Your task to perform on an android device: Check the news Image 0: 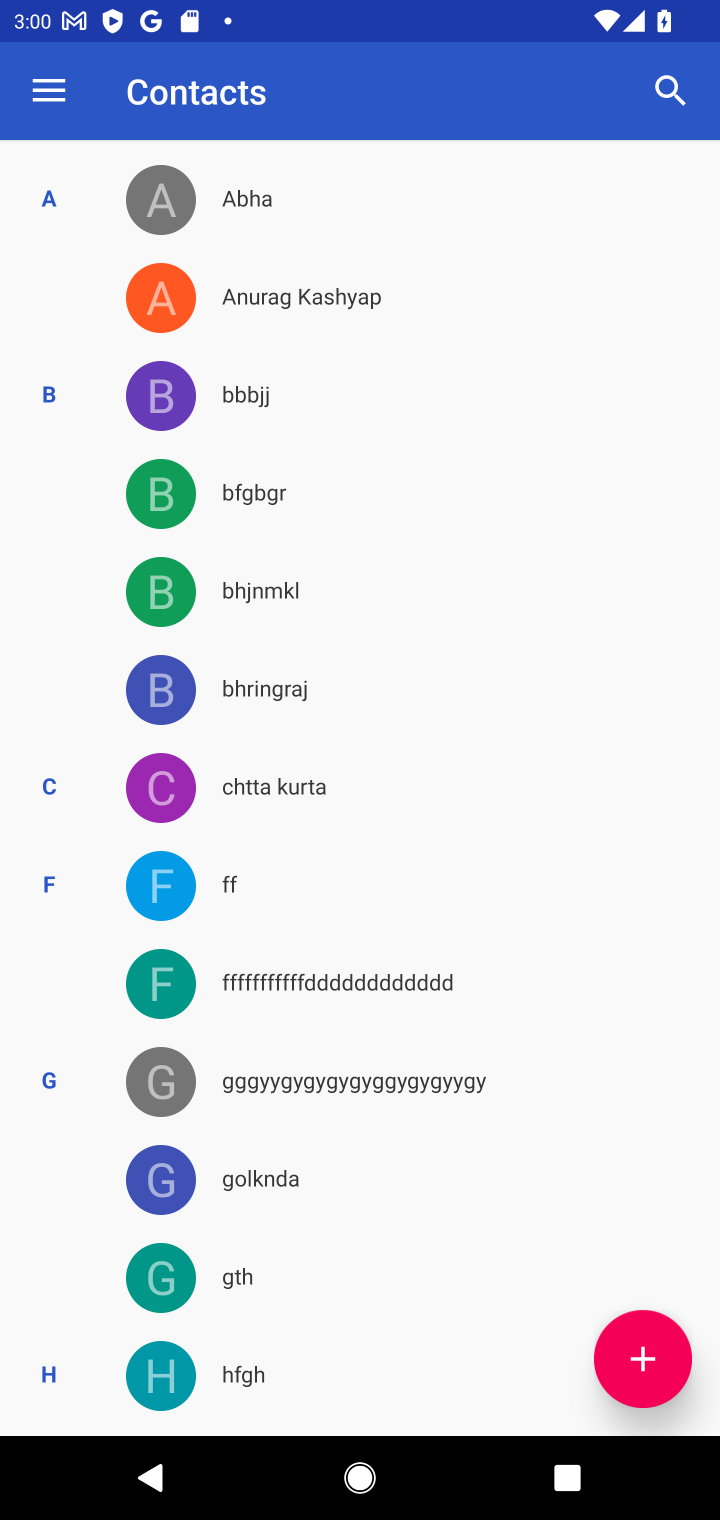
Step 0: press home button
Your task to perform on an android device: Check the news Image 1: 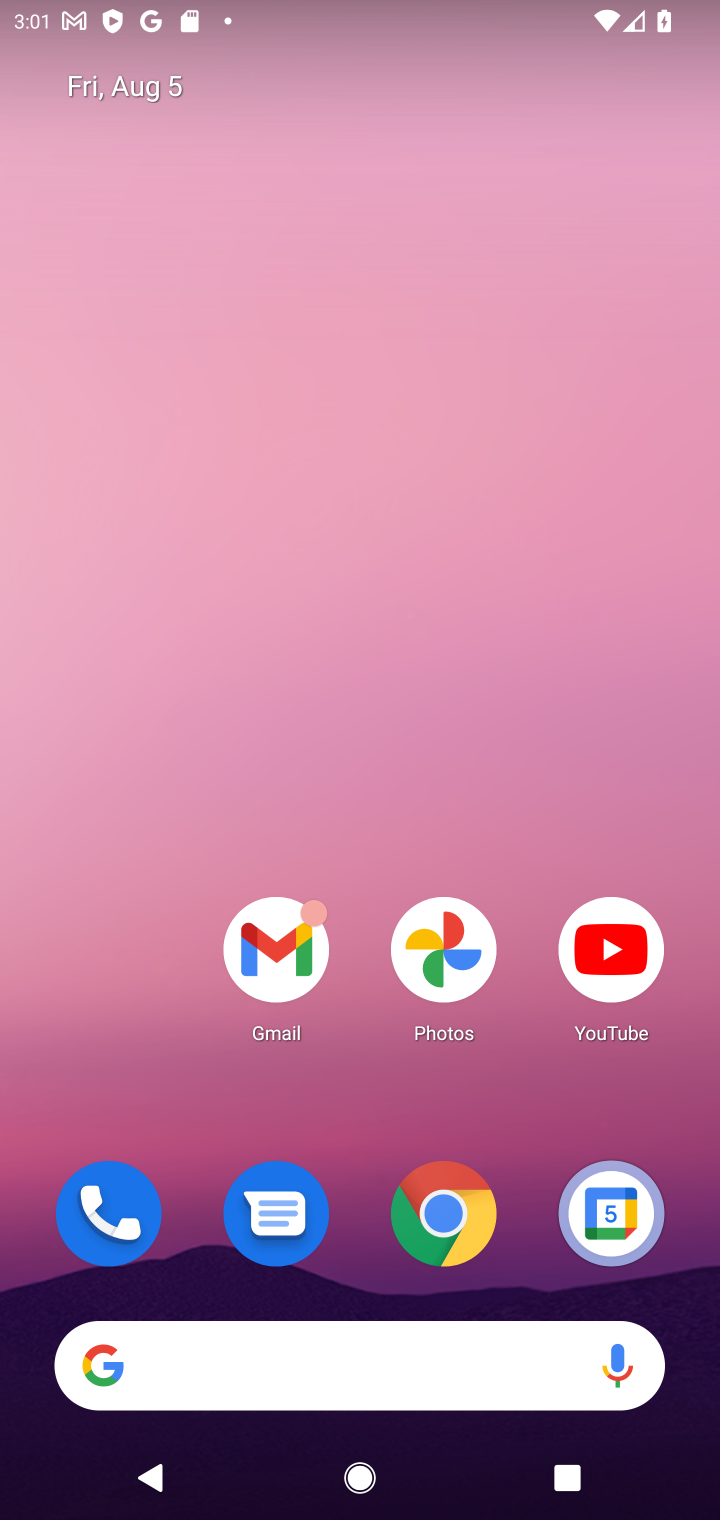
Step 1: click (388, 1364)
Your task to perform on an android device: Check the news Image 2: 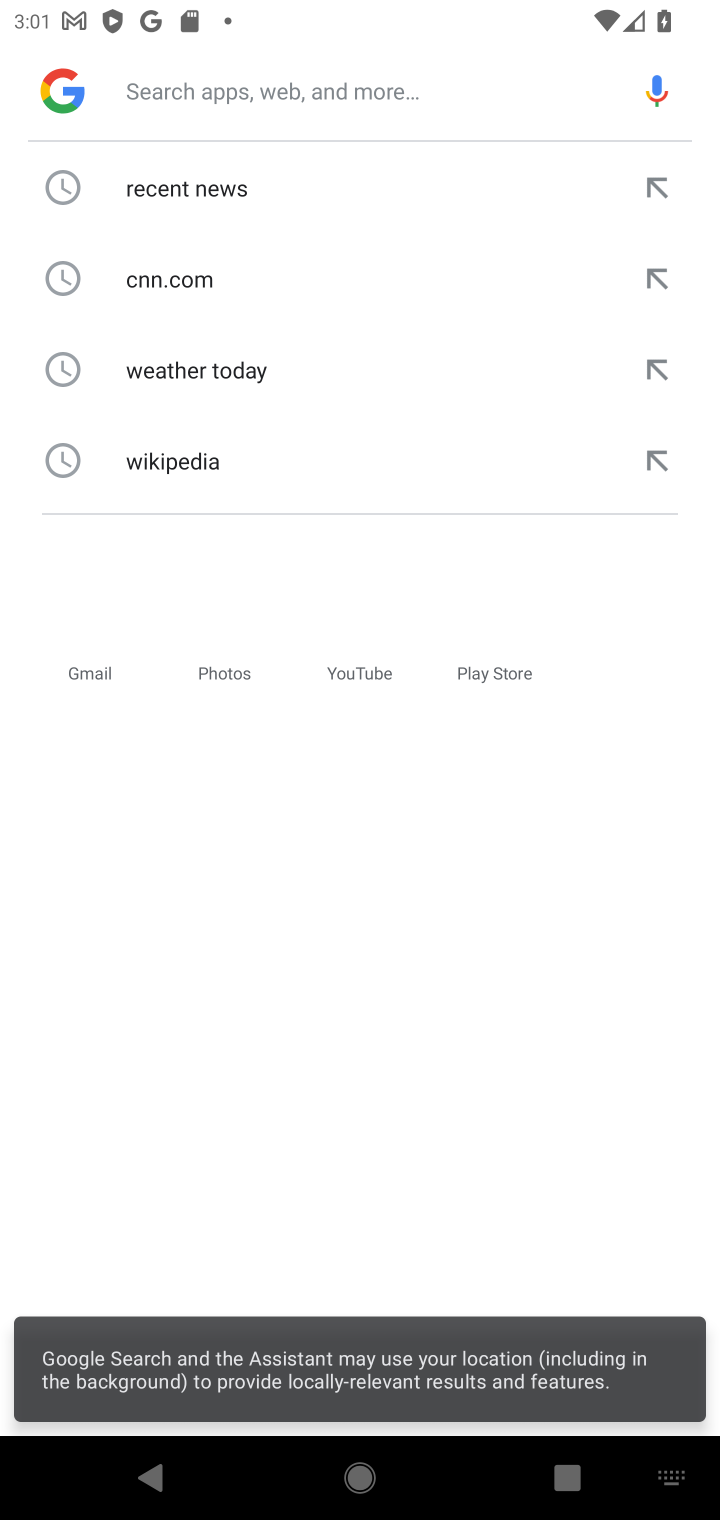
Step 2: click (252, 212)
Your task to perform on an android device: Check the news Image 3: 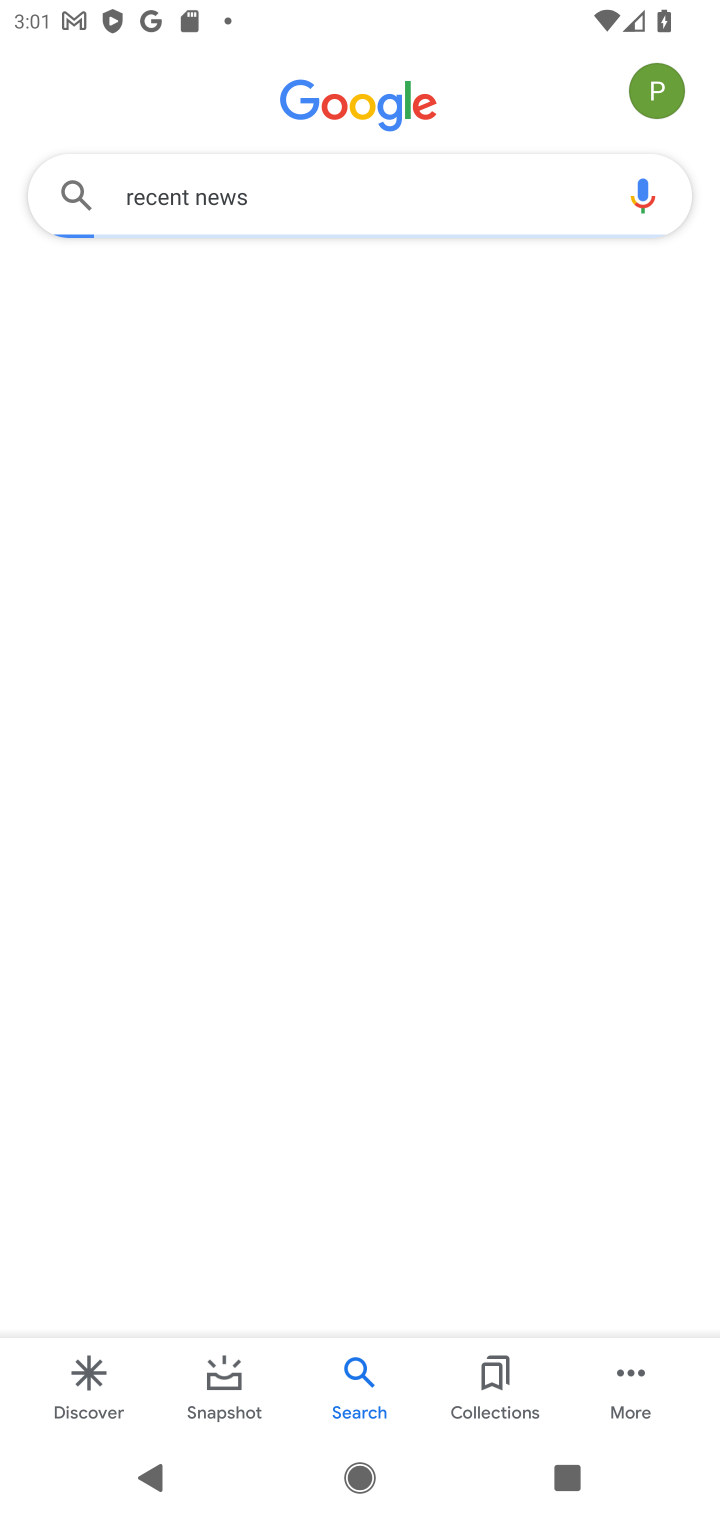
Step 3: task complete